Your task to perform on an android device: check data usage Image 0: 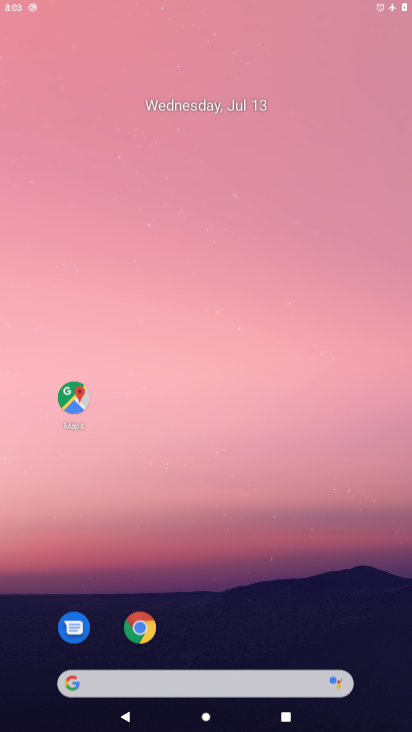
Step 0: click (340, 27)
Your task to perform on an android device: check data usage Image 1: 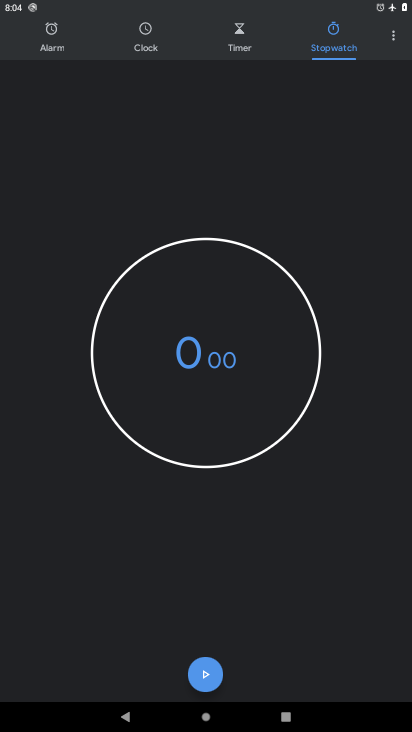
Step 1: press home button
Your task to perform on an android device: check data usage Image 2: 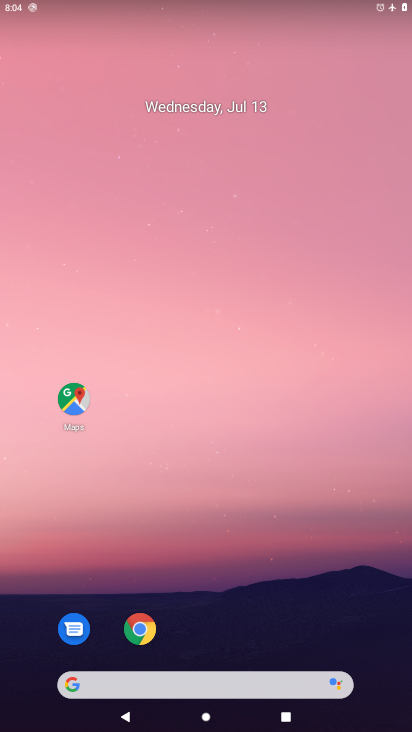
Step 2: drag from (39, 709) to (268, 84)
Your task to perform on an android device: check data usage Image 3: 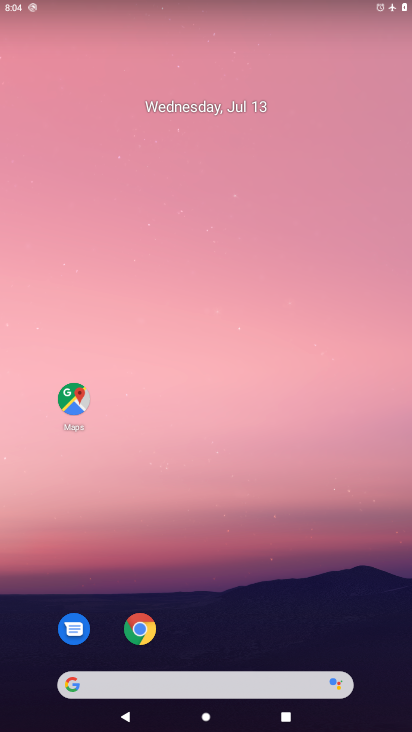
Step 3: drag from (51, 708) to (302, 40)
Your task to perform on an android device: check data usage Image 4: 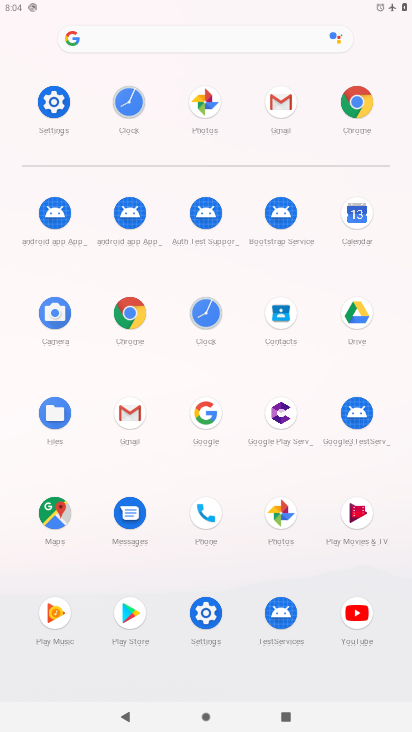
Step 4: click (210, 618)
Your task to perform on an android device: check data usage Image 5: 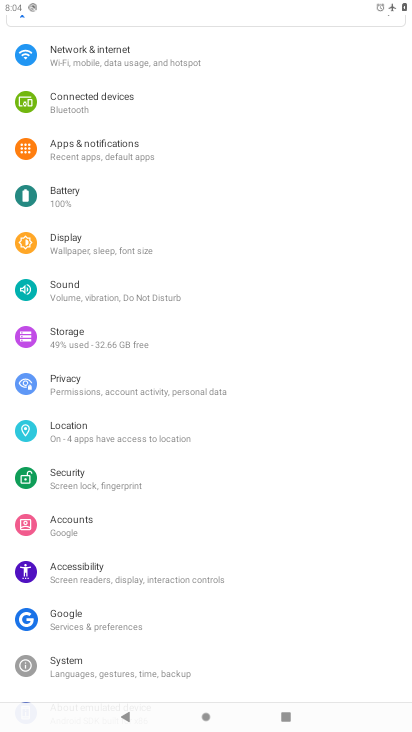
Step 5: click (114, 59)
Your task to perform on an android device: check data usage Image 6: 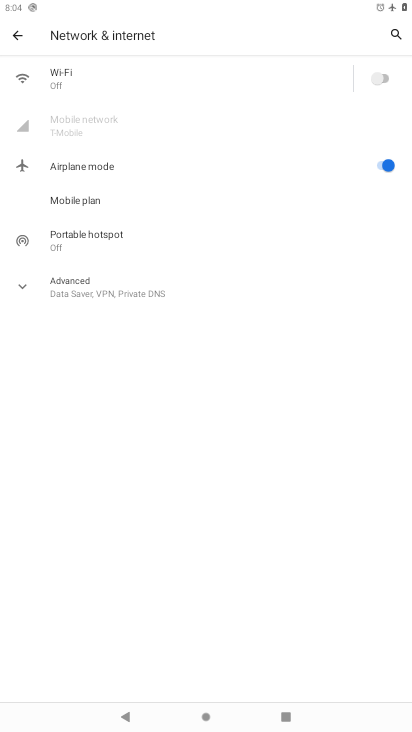
Step 6: click (382, 159)
Your task to perform on an android device: check data usage Image 7: 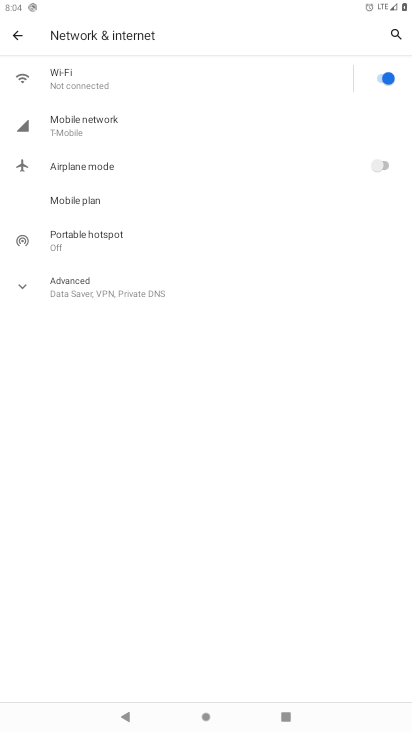
Step 7: click (133, 117)
Your task to perform on an android device: check data usage Image 8: 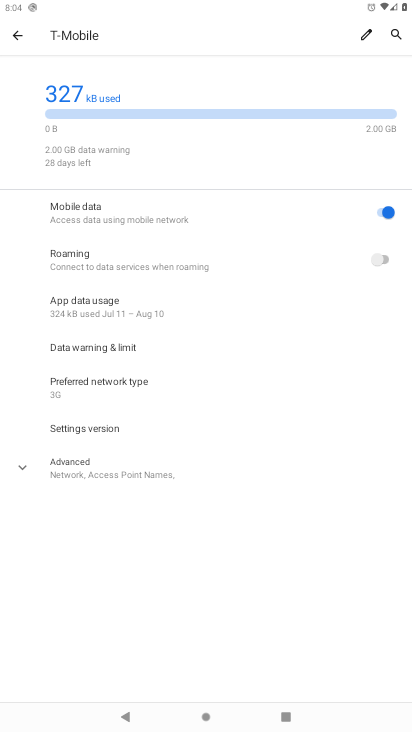
Step 8: task complete